Your task to perform on an android device: turn on the 12-hour format for clock Image 0: 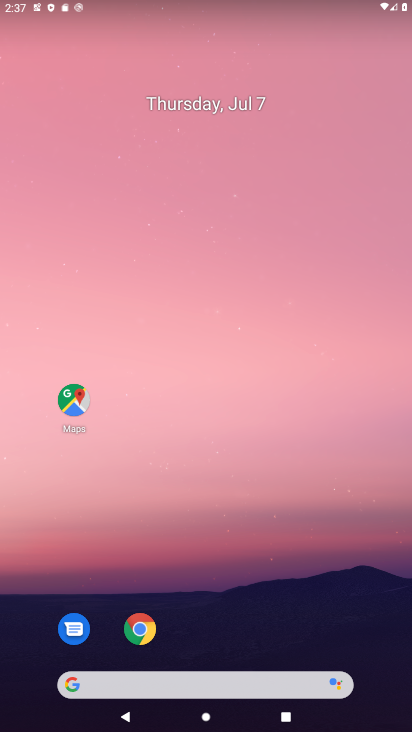
Step 0: drag from (304, 348) to (280, 234)
Your task to perform on an android device: turn on the 12-hour format for clock Image 1: 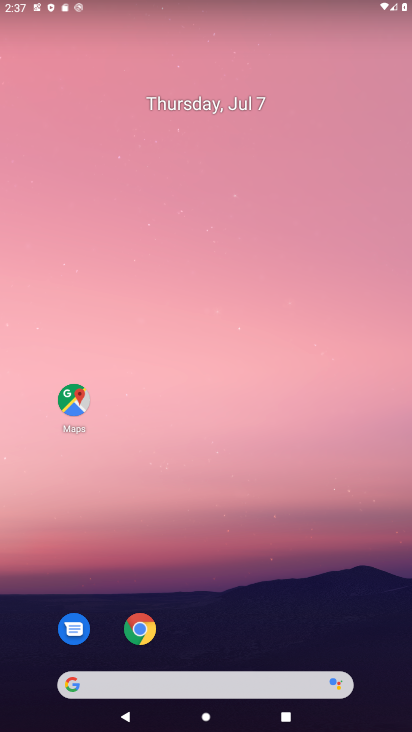
Step 1: drag from (181, 650) to (197, 58)
Your task to perform on an android device: turn on the 12-hour format for clock Image 2: 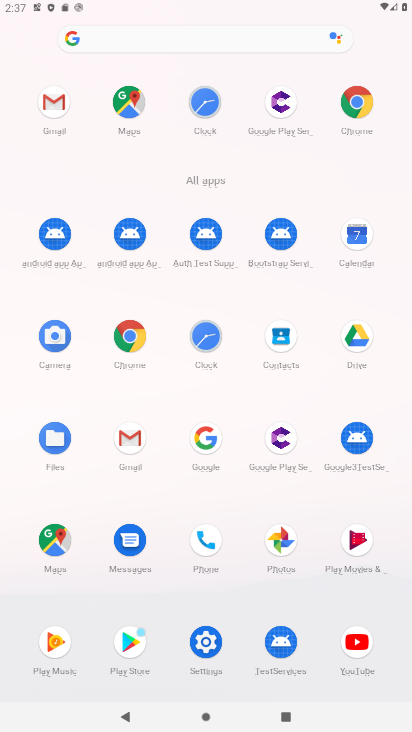
Step 2: click (200, 348)
Your task to perform on an android device: turn on the 12-hour format for clock Image 3: 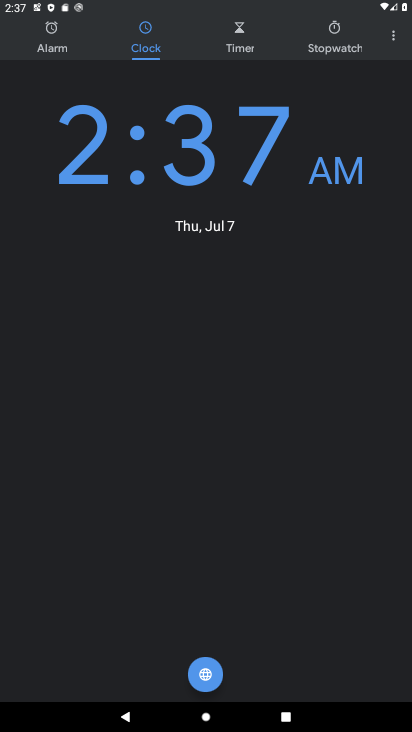
Step 3: click (389, 39)
Your task to perform on an android device: turn on the 12-hour format for clock Image 4: 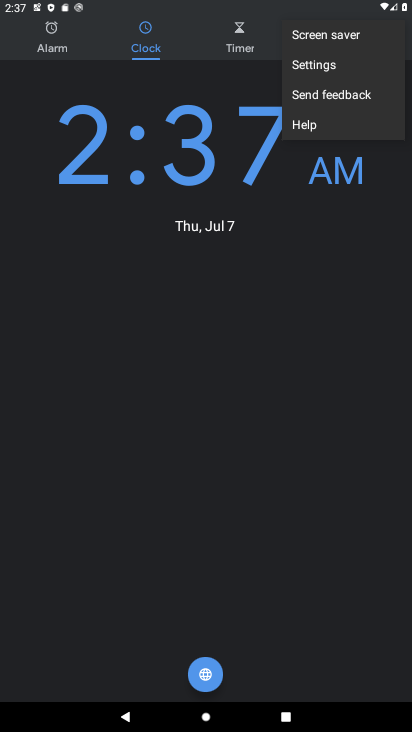
Step 4: click (322, 73)
Your task to perform on an android device: turn on the 12-hour format for clock Image 5: 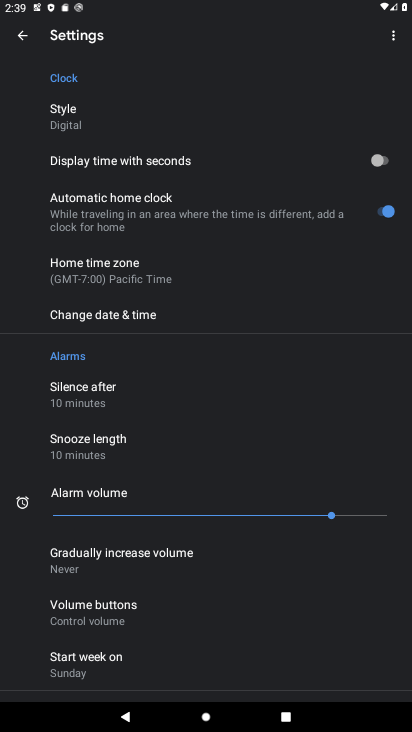
Step 5: task complete